Your task to perform on an android device: turn vacation reply on in the gmail app Image 0: 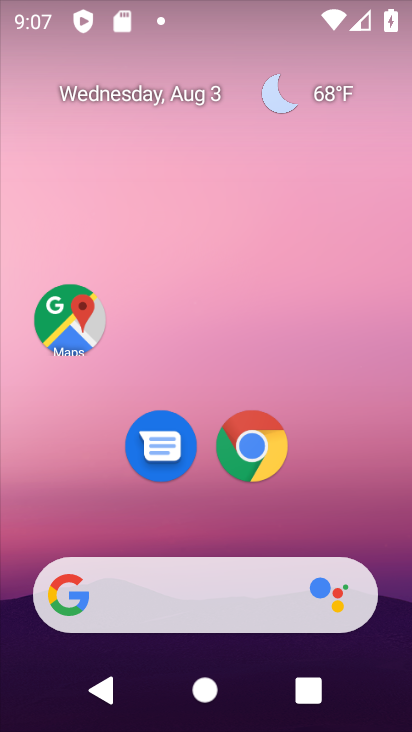
Step 0: drag from (381, 697) to (368, 156)
Your task to perform on an android device: turn vacation reply on in the gmail app Image 1: 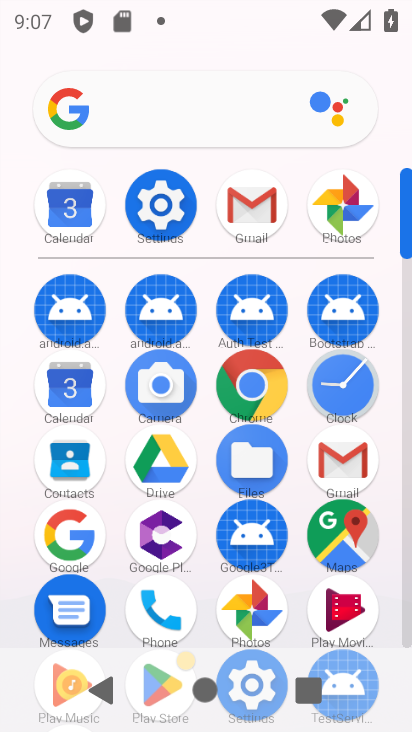
Step 1: click (252, 208)
Your task to perform on an android device: turn vacation reply on in the gmail app Image 2: 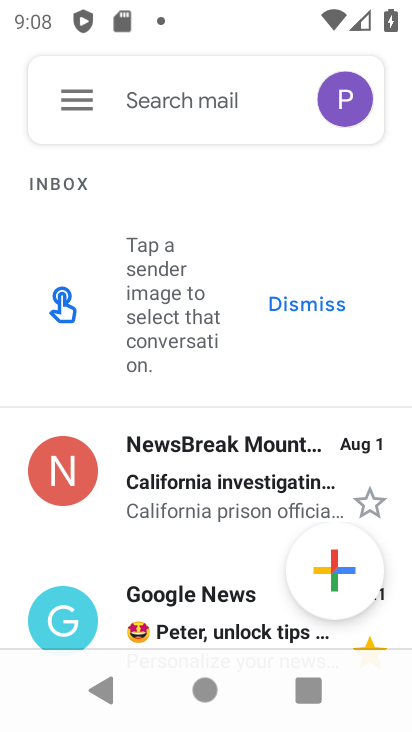
Step 2: click (84, 98)
Your task to perform on an android device: turn vacation reply on in the gmail app Image 3: 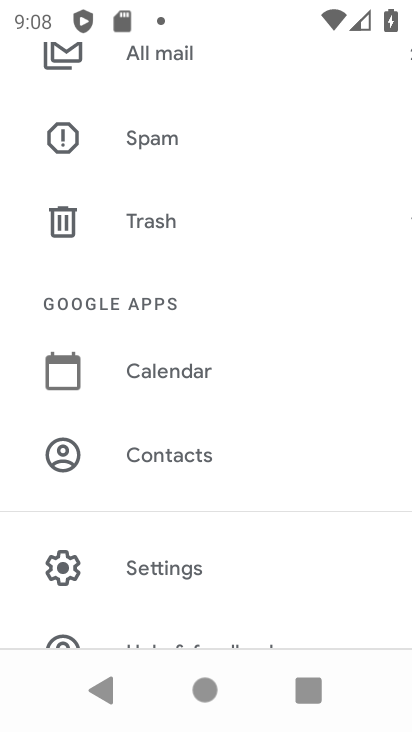
Step 3: click (184, 557)
Your task to perform on an android device: turn vacation reply on in the gmail app Image 4: 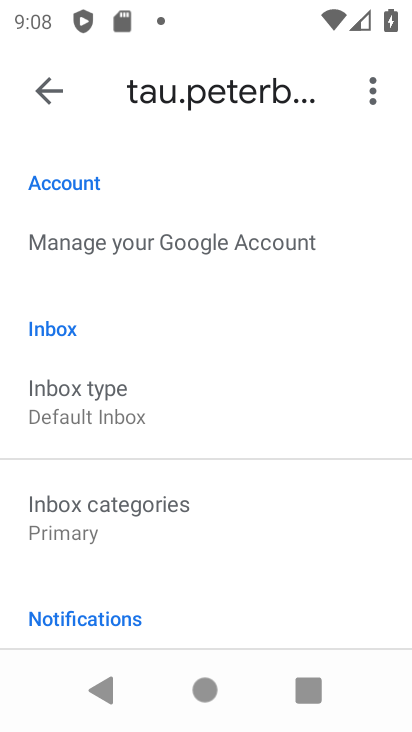
Step 4: drag from (220, 614) to (244, 198)
Your task to perform on an android device: turn vacation reply on in the gmail app Image 5: 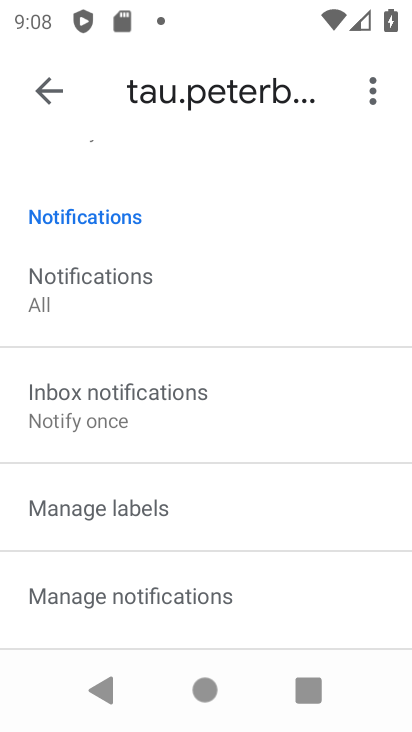
Step 5: drag from (289, 578) to (236, 186)
Your task to perform on an android device: turn vacation reply on in the gmail app Image 6: 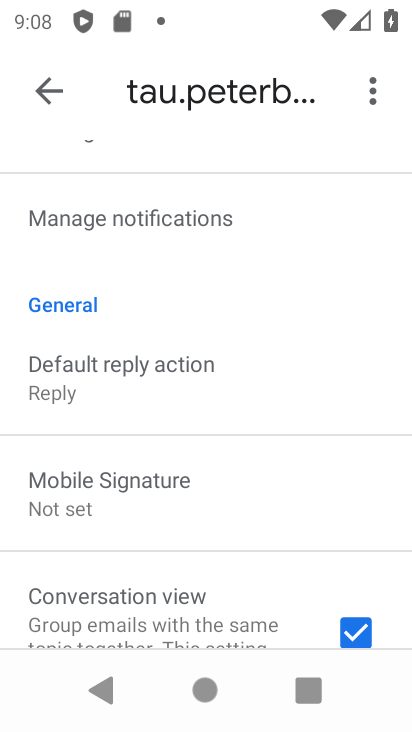
Step 6: drag from (244, 602) to (224, 229)
Your task to perform on an android device: turn vacation reply on in the gmail app Image 7: 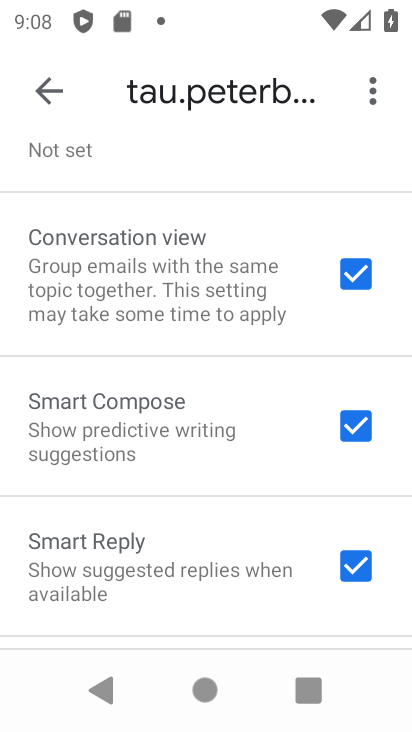
Step 7: drag from (172, 592) to (184, 334)
Your task to perform on an android device: turn vacation reply on in the gmail app Image 8: 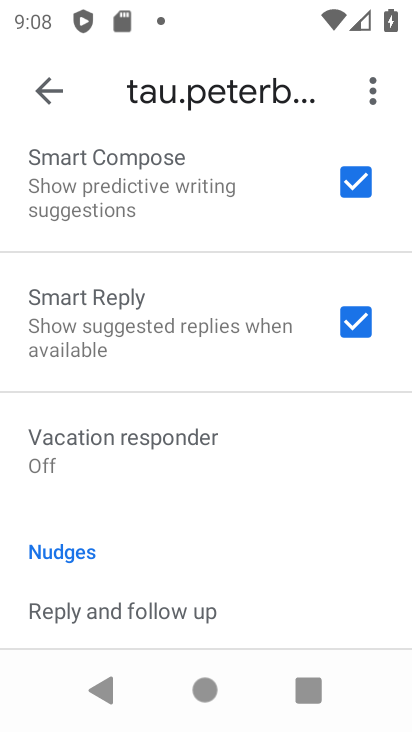
Step 8: click (118, 442)
Your task to perform on an android device: turn vacation reply on in the gmail app Image 9: 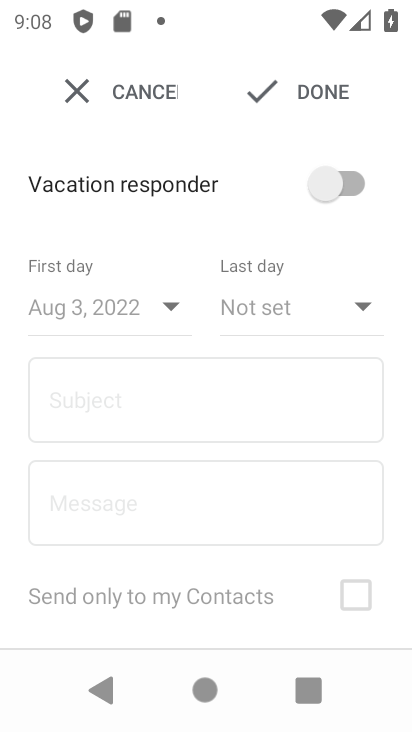
Step 9: click (324, 173)
Your task to perform on an android device: turn vacation reply on in the gmail app Image 10: 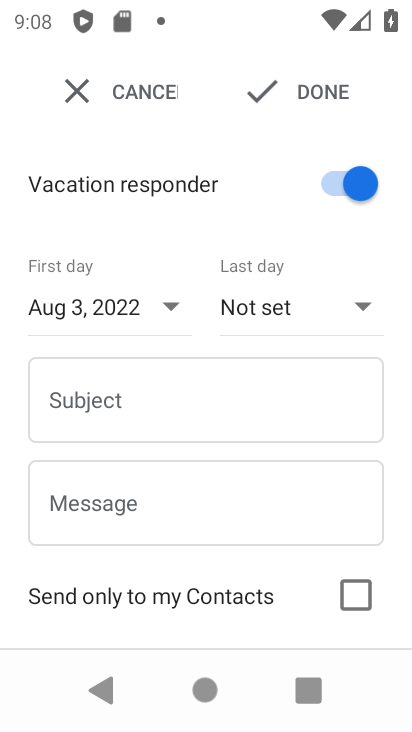
Step 10: task complete